Your task to perform on an android device: see sites visited before in the chrome app Image 0: 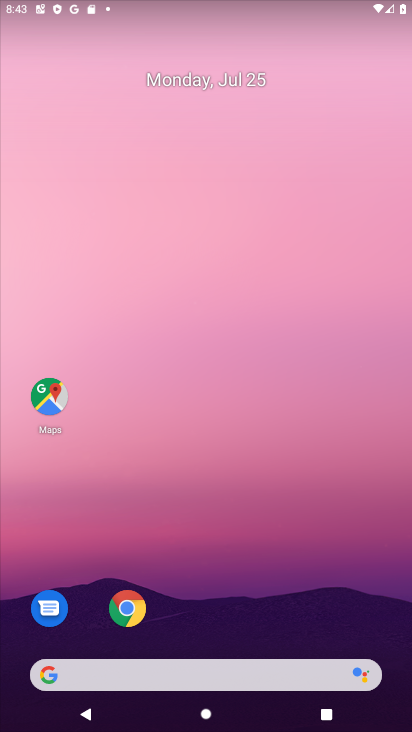
Step 0: drag from (266, 656) to (262, 129)
Your task to perform on an android device: see sites visited before in the chrome app Image 1: 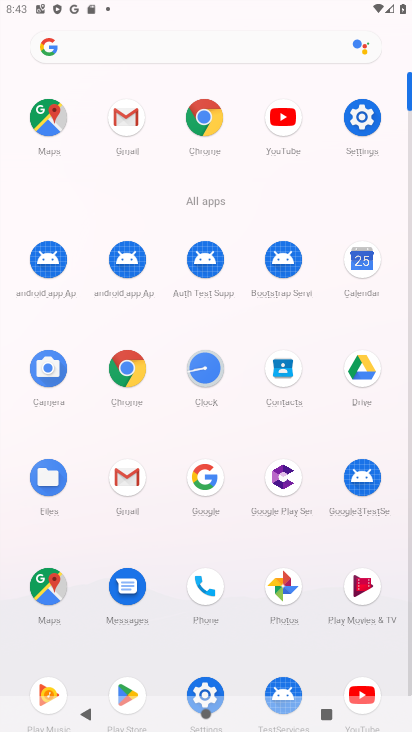
Step 1: click (127, 366)
Your task to perform on an android device: see sites visited before in the chrome app Image 2: 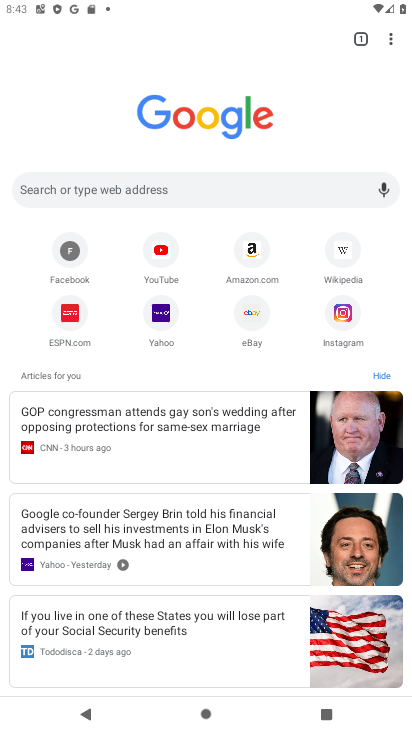
Step 2: click (392, 35)
Your task to perform on an android device: see sites visited before in the chrome app Image 3: 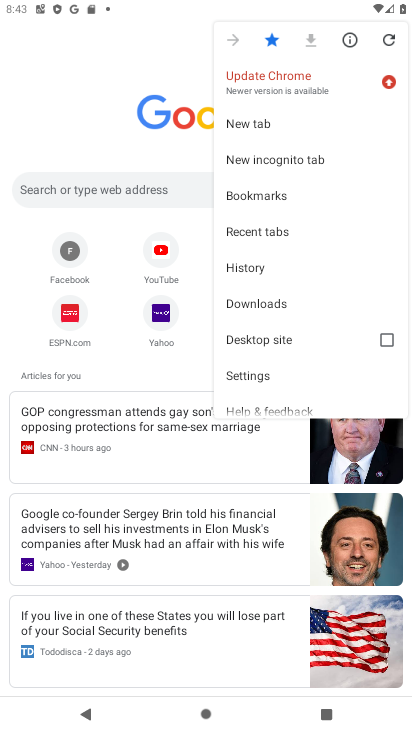
Step 3: click (238, 262)
Your task to perform on an android device: see sites visited before in the chrome app Image 4: 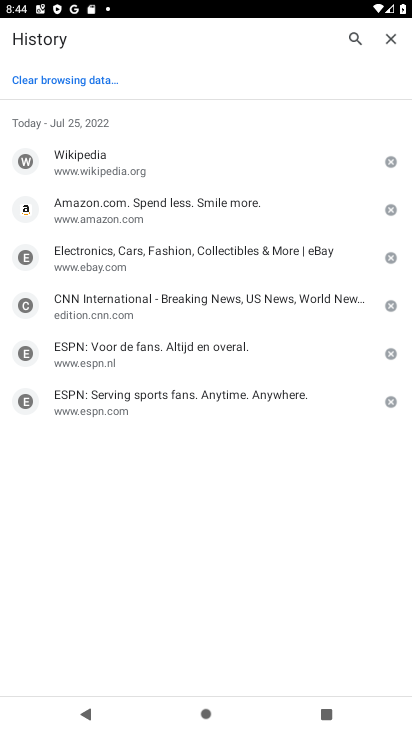
Step 4: task complete